Your task to perform on an android device: set the timer Image 0: 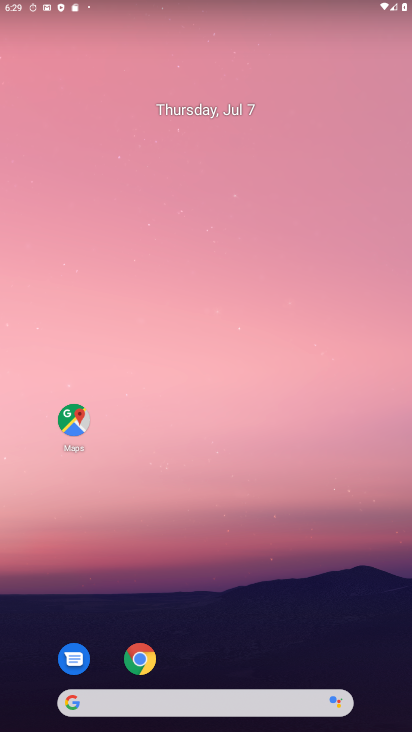
Step 0: drag from (383, 653) to (196, 6)
Your task to perform on an android device: set the timer Image 1: 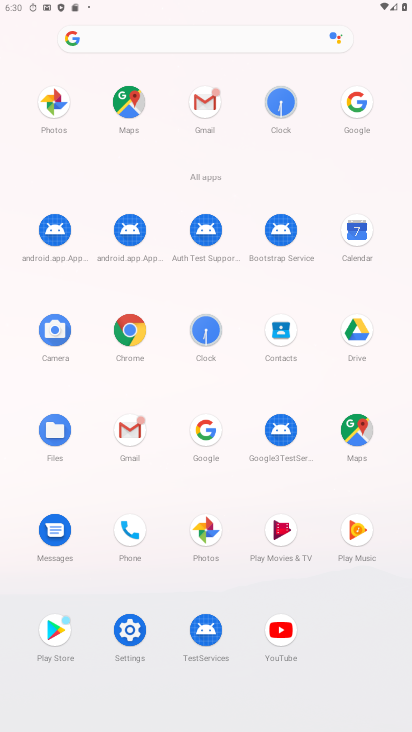
Step 1: click (207, 351)
Your task to perform on an android device: set the timer Image 2: 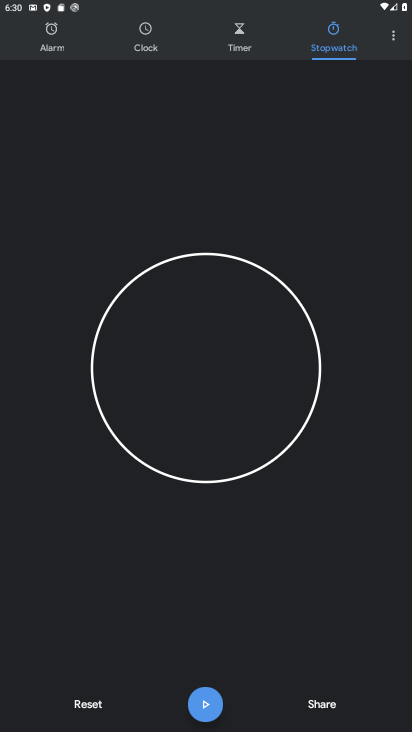
Step 2: click (247, 36)
Your task to perform on an android device: set the timer Image 3: 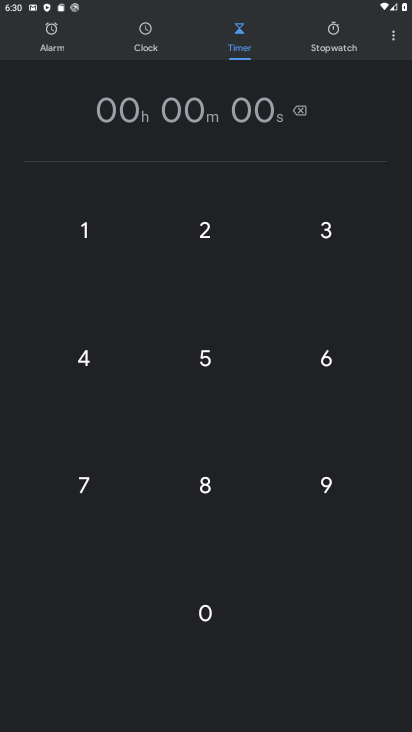
Step 3: click (256, 109)
Your task to perform on an android device: set the timer Image 4: 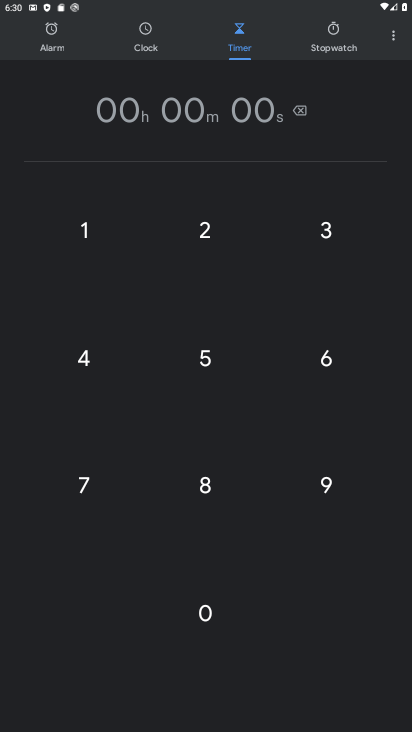
Step 4: click (219, 232)
Your task to perform on an android device: set the timer Image 5: 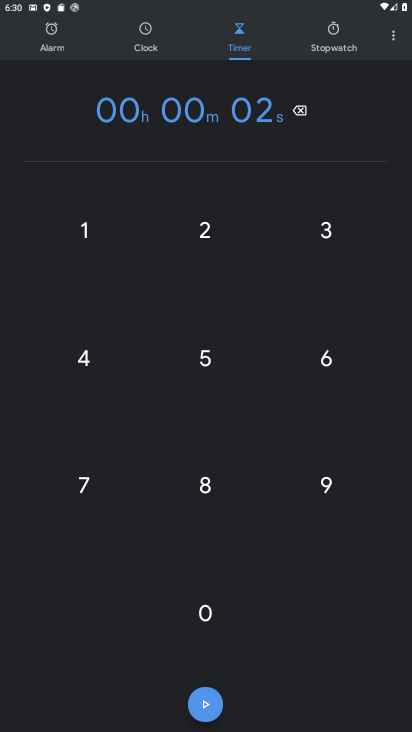
Step 5: click (205, 609)
Your task to perform on an android device: set the timer Image 6: 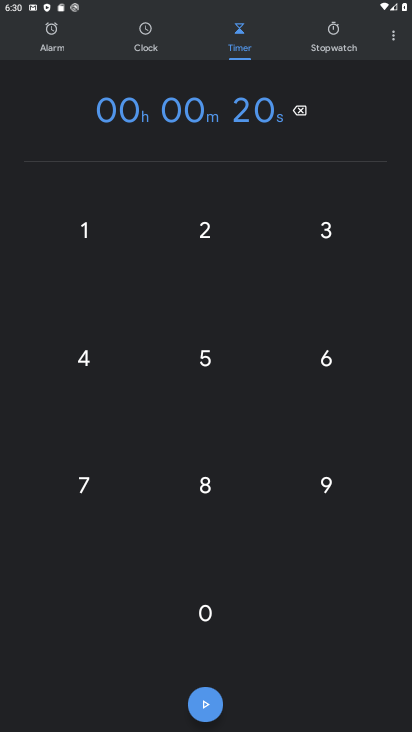
Step 6: click (129, 102)
Your task to perform on an android device: set the timer Image 7: 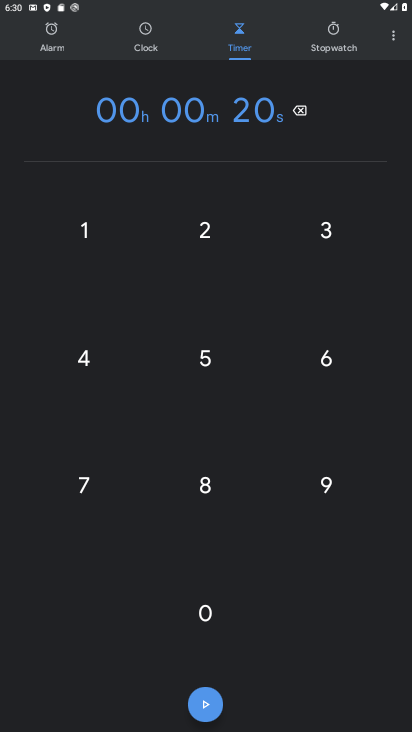
Step 7: click (72, 236)
Your task to perform on an android device: set the timer Image 8: 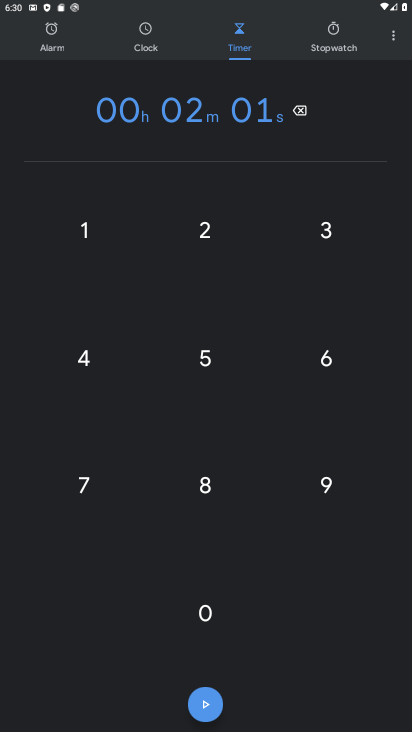
Step 8: click (111, 121)
Your task to perform on an android device: set the timer Image 9: 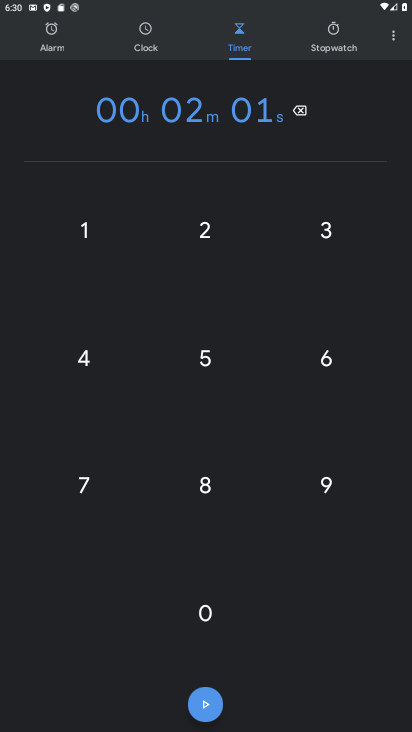
Step 9: click (74, 230)
Your task to perform on an android device: set the timer Image 10: 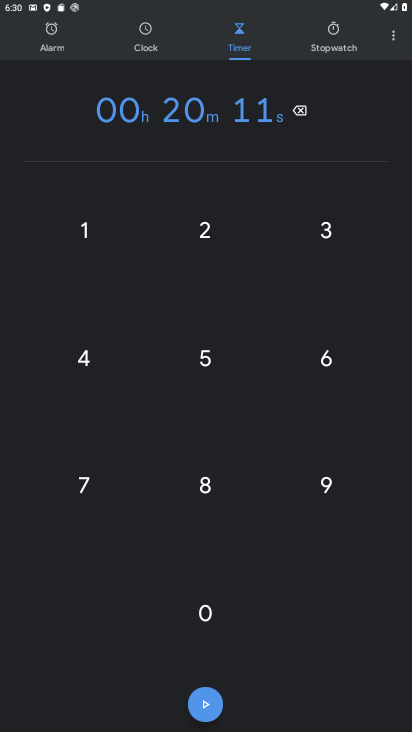
Step 10: click (118, 101)
Your task to perform on an android device: set the timer Image 11: 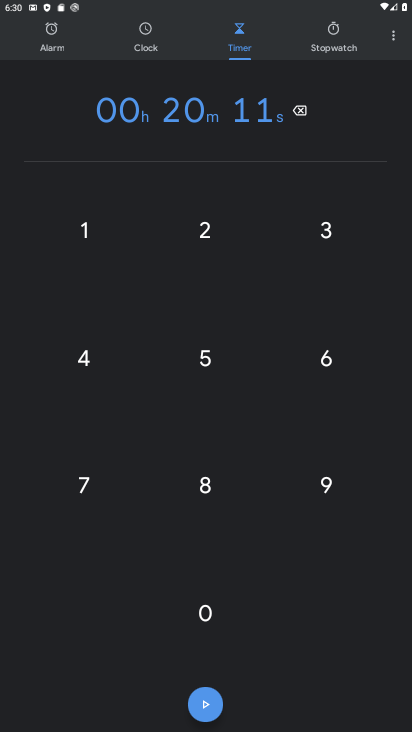
Step 11: click (209, 222)
Your task to perform on an android device: set the timer Image 12: 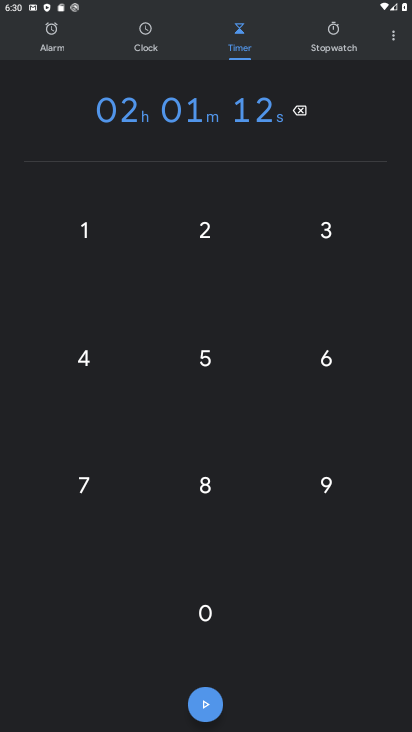
Step 12: task complete